Your task to perform on an android device: turn vacation reply on in the gmail app Image 0: 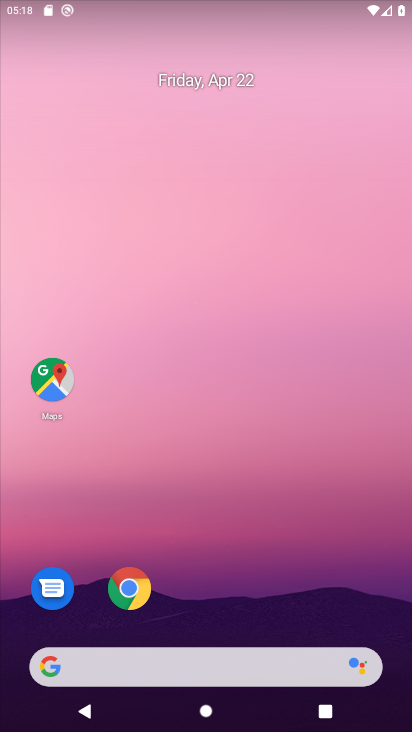
Step 0: drag from (288, 524) to (206, 106)
Your task to perform on an android device: turn vacation reply on in the gmail app Image 1: 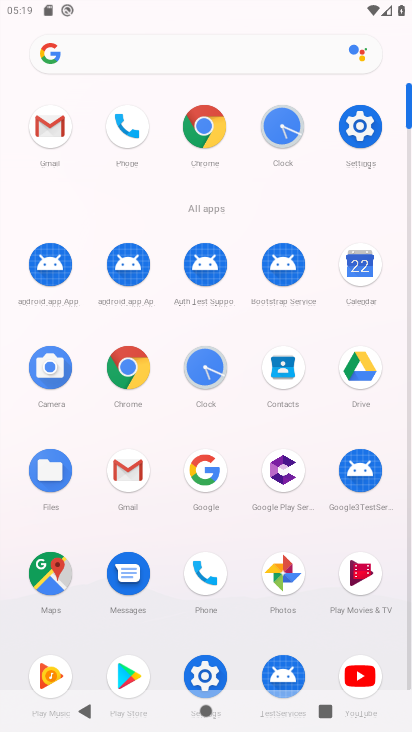
Step 1: click (44, 127)
Your task to perform on an android device: turn vacation reply on in the gmail app Image 2: 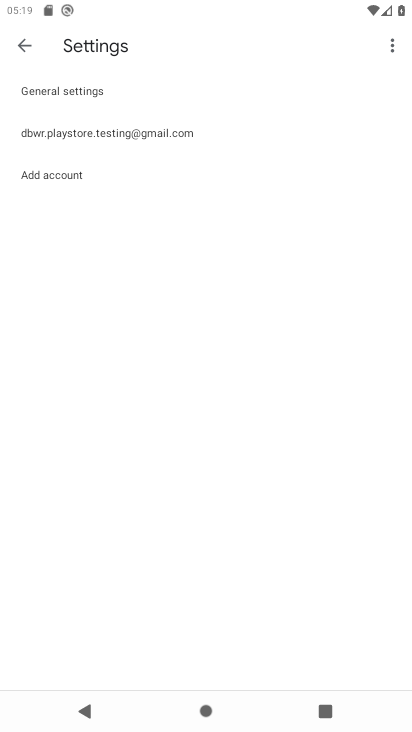
Step 2: click (41, 133)
Your task to perform on an android device: turn vacation reply on in the gmail app Image 3: 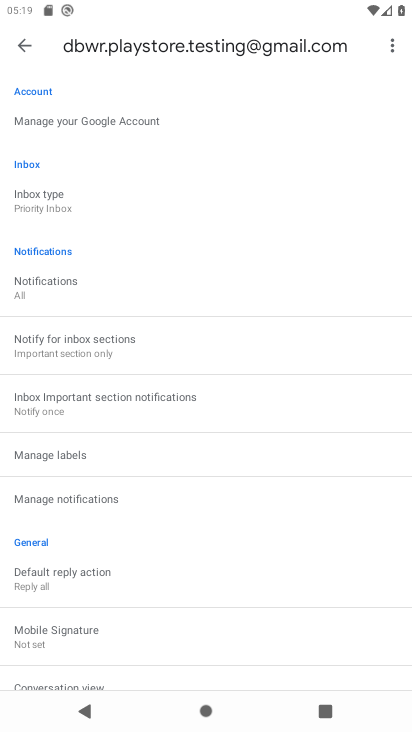
Step 3: drag from (136, 622) to (161, 249)
Your task to perform on an android device: turn vacation reply on in the gmail app Image 4: 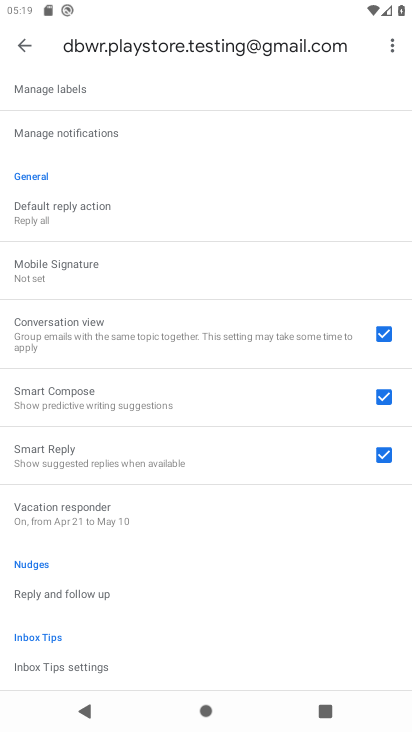
Step 4: click (98, 515)
Your task to perform on an android device: turn vacation reply on in the gmail app Image 5: 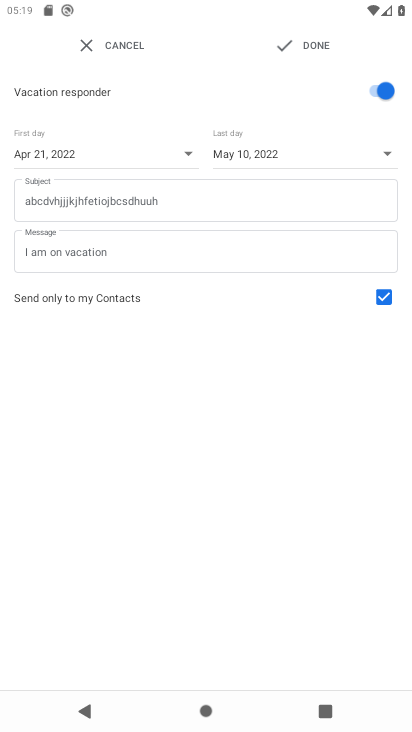
Step 5: click (292, 45)
Your task to perform on an android device: turn vacation reply on in the gmail app Image 6: 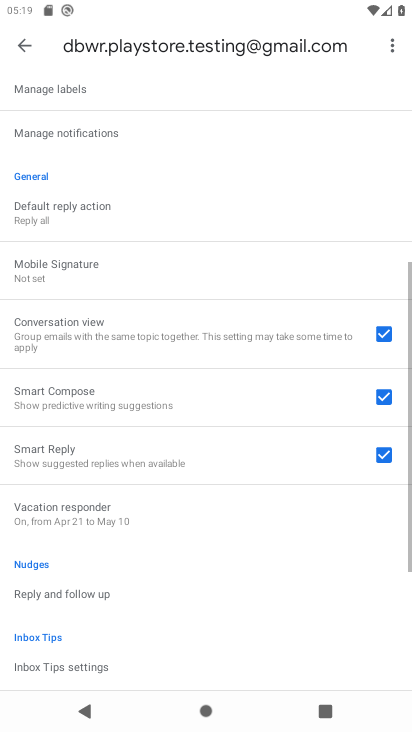
Step 6: task complete